Your task to perform on an android device: stop showing notifications on the lock screen Image 0: 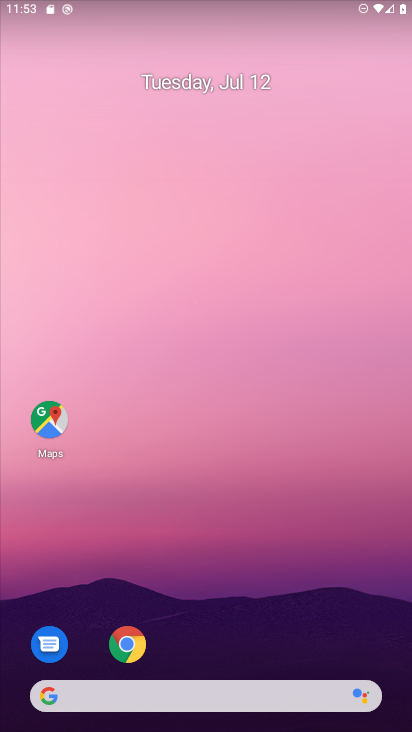
Step 0: drag from (195, 729) to (405, 17)
Your task to perform on an android device: stop showing notifications on the lock screen Image 1: 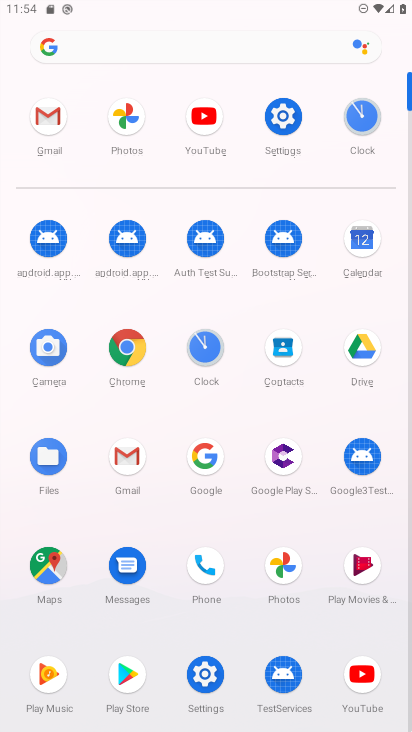
Step 1: click (292, 118)
Your task to perform on an android device: stop showing notifications on the lock screen Image 2: 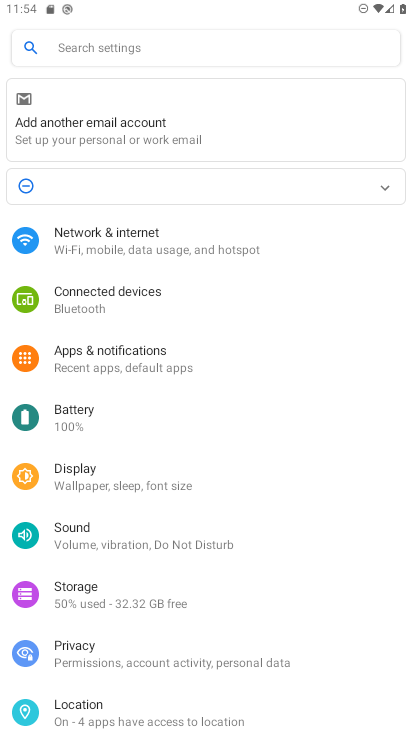
Step 2: click (199, 358)
Your task to perform on an android device: stop showing notifications on the lock screen Image 3: 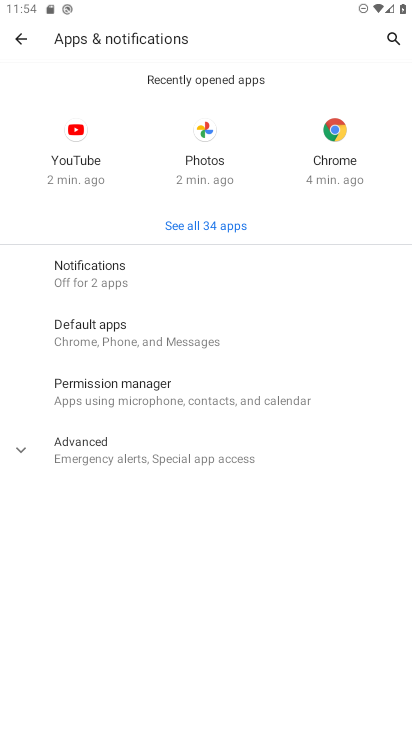
Step 3: click (141, 278)
Your task to perform on an android device: stop showing notifications on the lock screen Image 4: 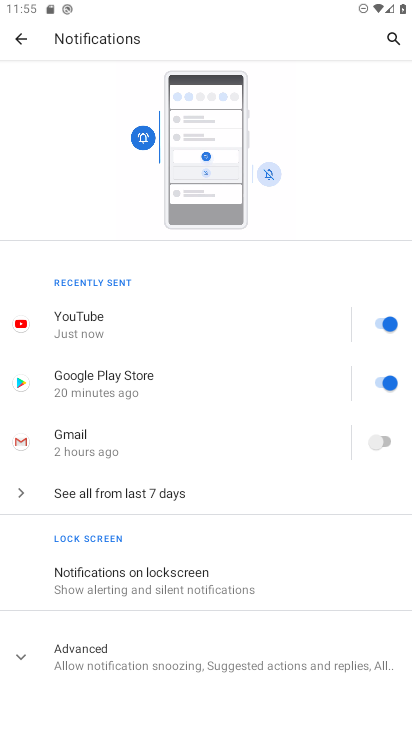
Step 4: click (207, 587)
Your task to perform on an android device: stop showing notifications on the lock screen Image 5: 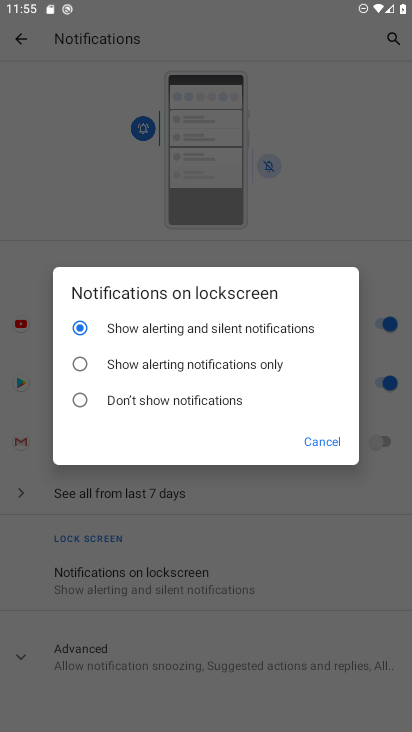
Step 5: click (151, 402)
Your task to perform on an android device: stop showing notifications on the lock screen Image 6: 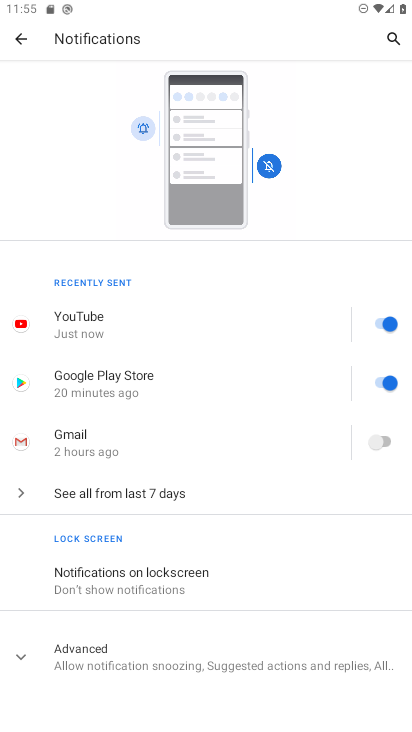
Step 6: task complete